Your task to perform on an android device: turn on translation in the chrome app Image 0: 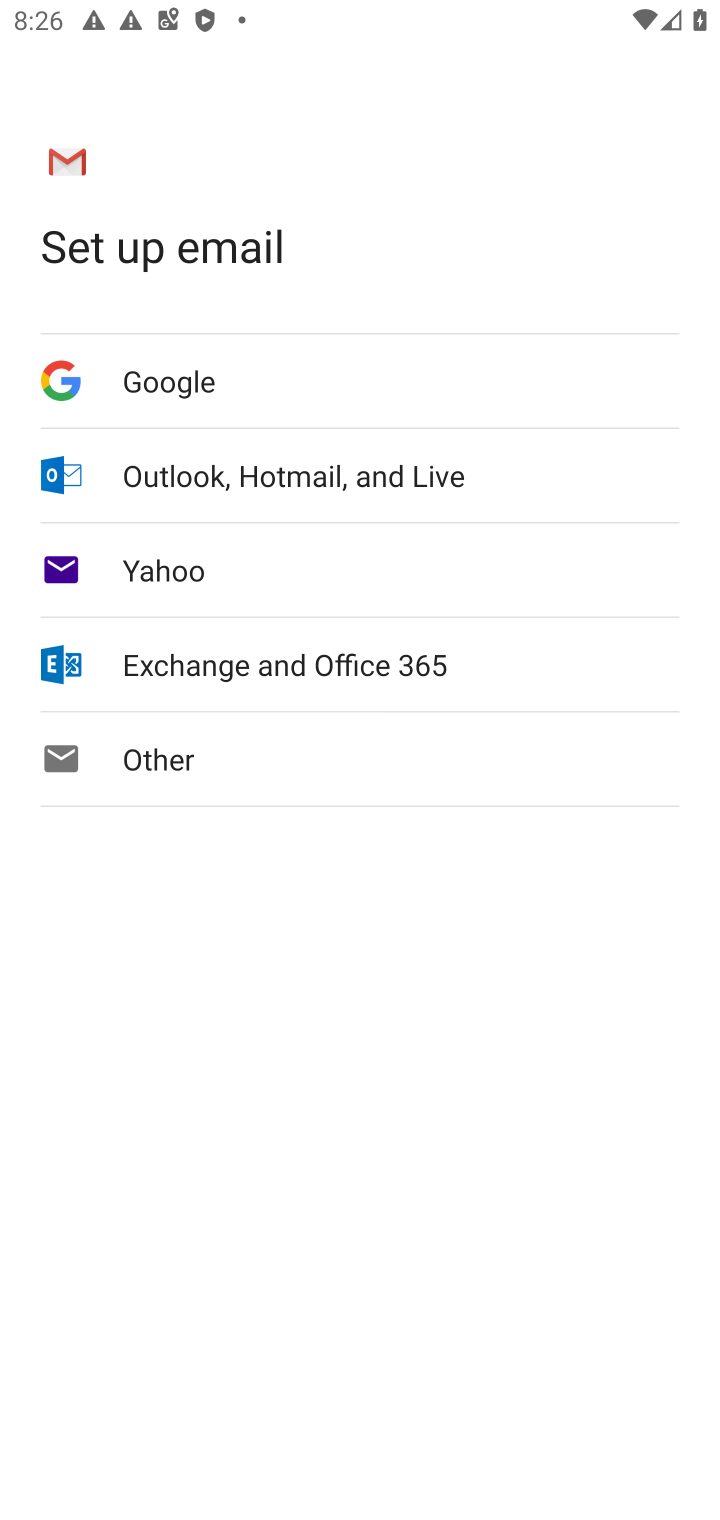
Step 0: press back button
Your task to perform on an android device: turn on translation in the chrome app Image 1: 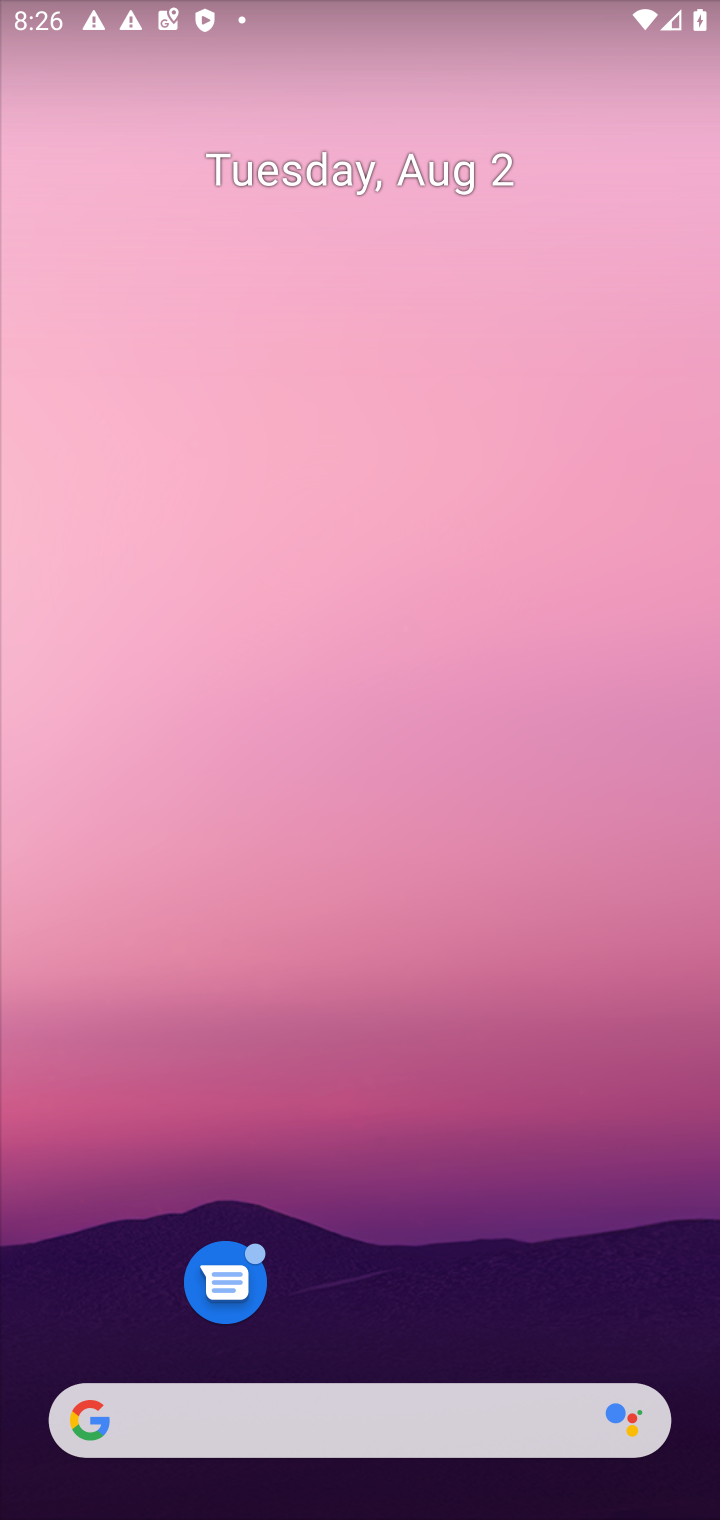
Step 1: drag from (435, 1351) to (323, 138)
Your task to perform on an android device: turn on translation in the chrome app Image 2: 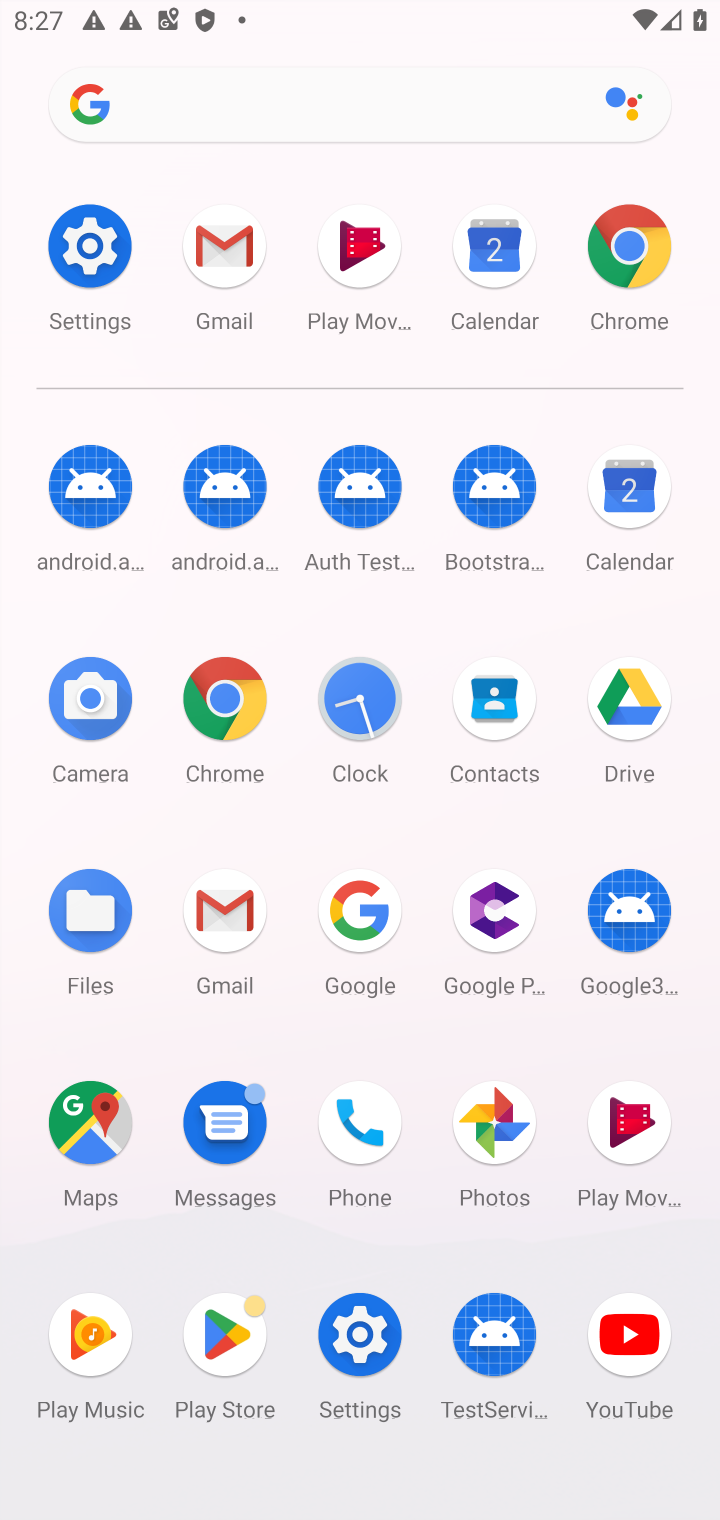
Step 2: click (234, 709)
Your task to perform on an android device: turn on translation in the chrome app Image 3: 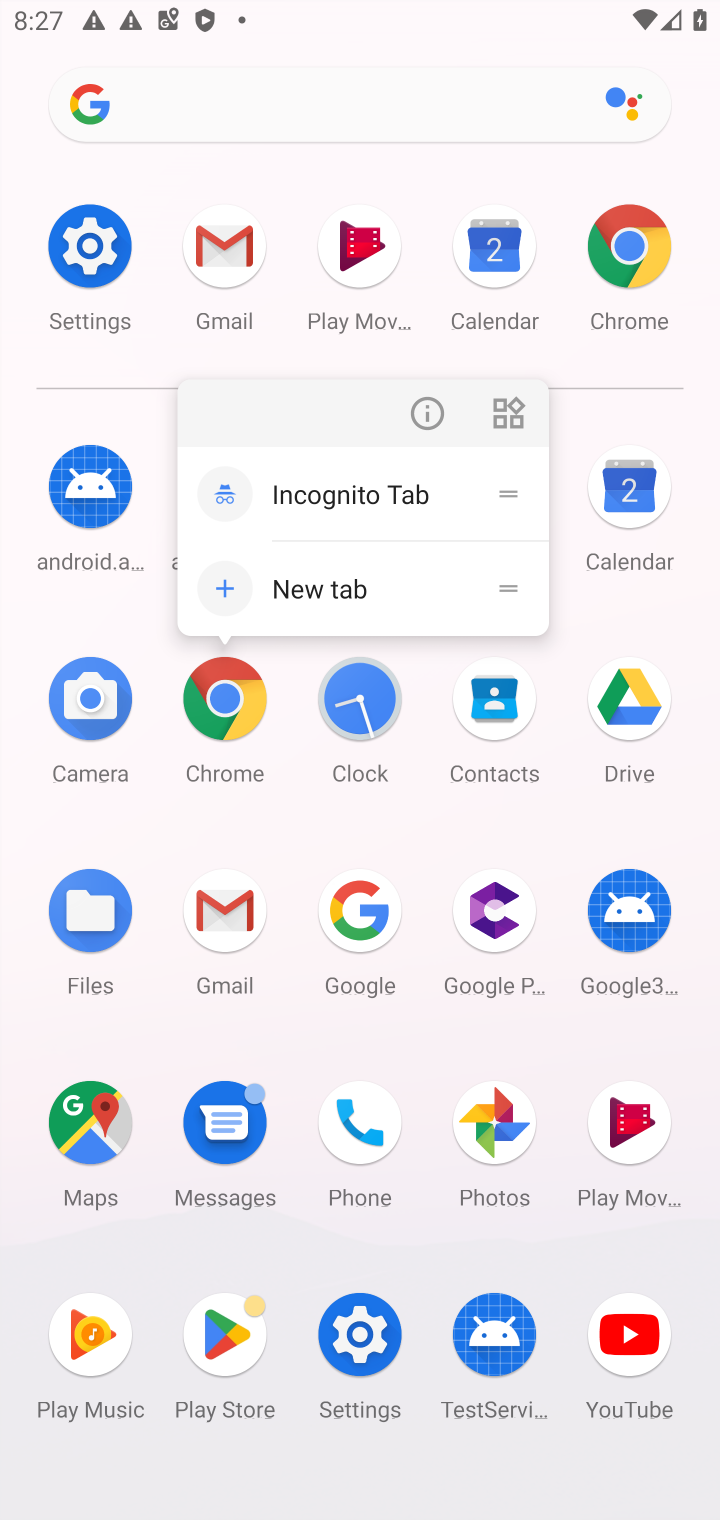
Step 3: click (238, 706)
Your task to perform on an android device: turn on translation in the chrome app Image 4: 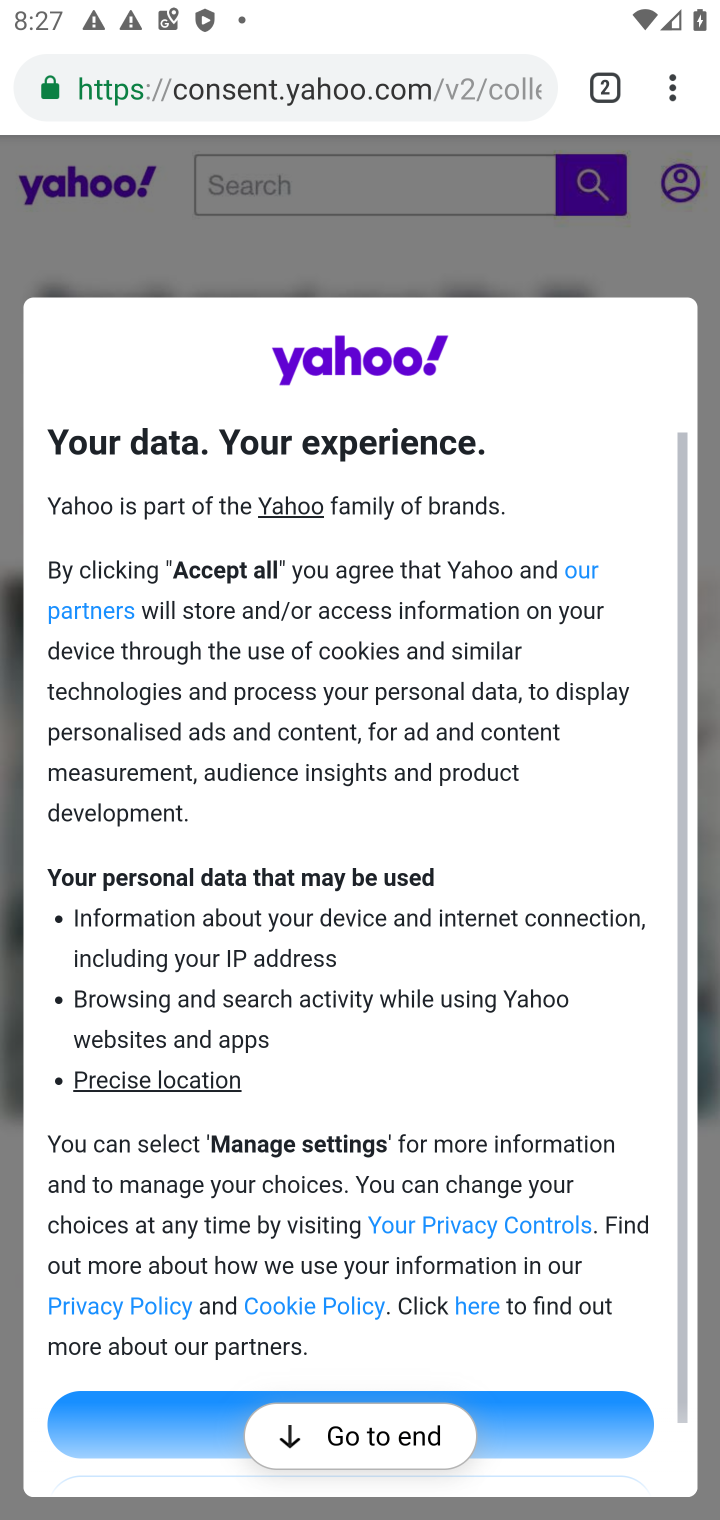
Step 4: click (687, 95)
Your task to perform on an android device: turn on translation in the chrome app Image 5: 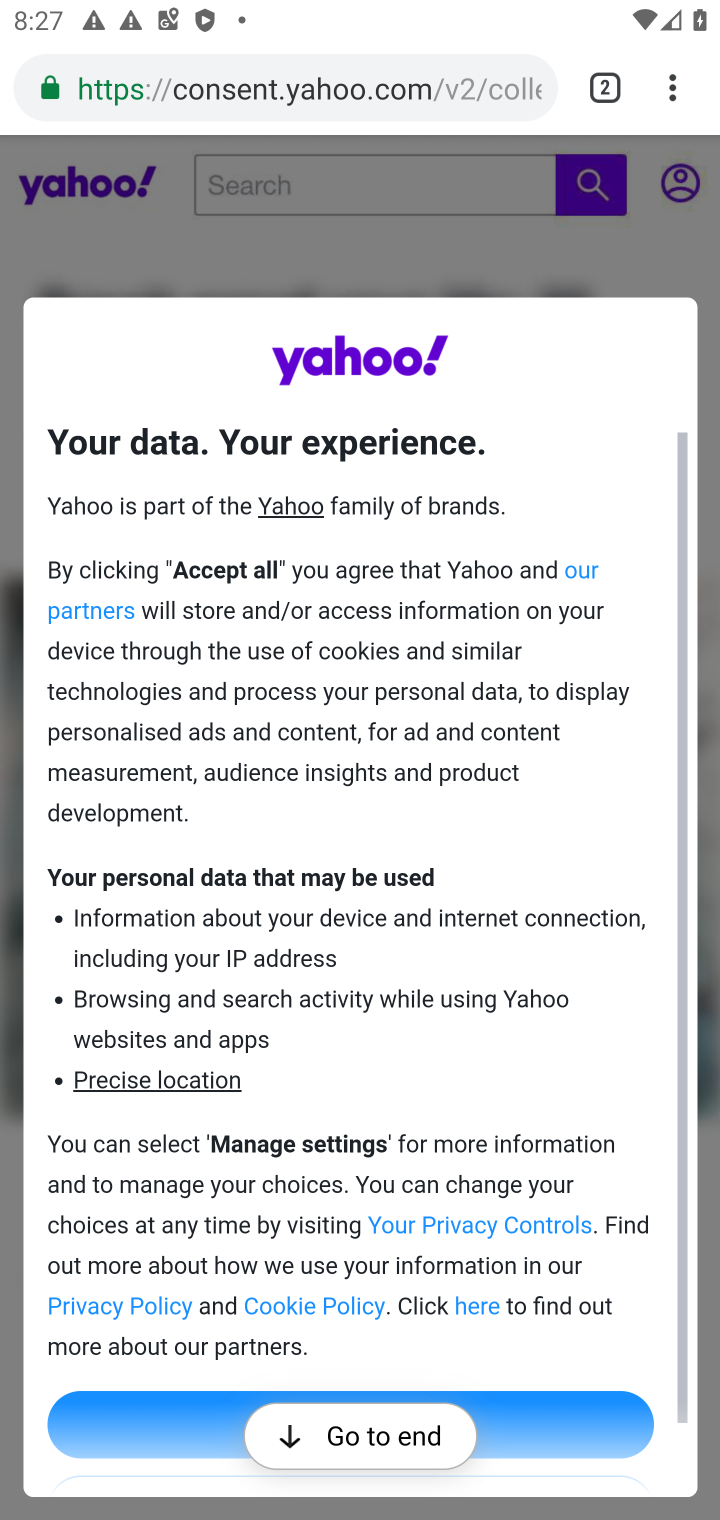
Step 5: drag from (673, 106) to (355, 1069)
Your task to perform on an android device: turn on translation in the chrome app Image 6: 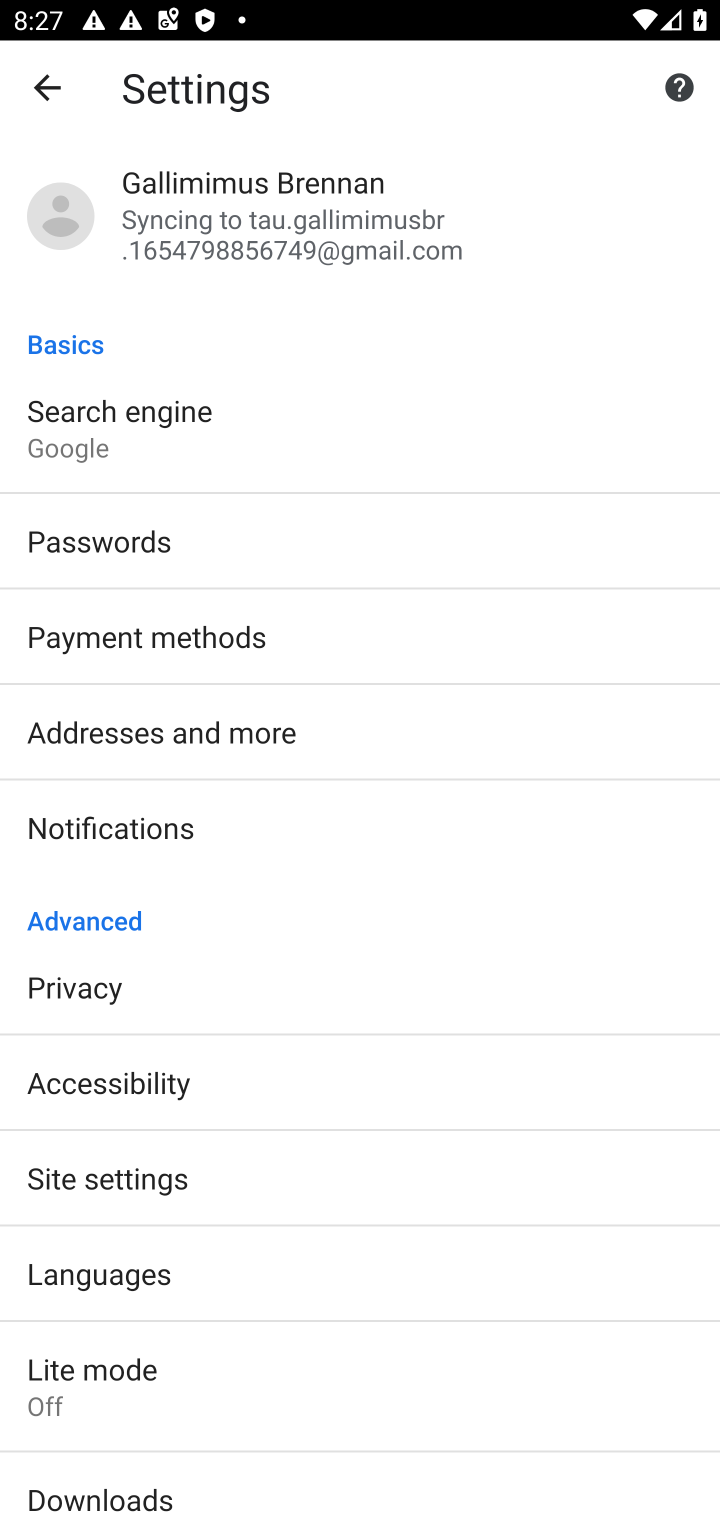
Step 6: drag from (173, 1177) to (7, 135)
Your task to perform on an android device: turn on translation in the chrome app Image 7: 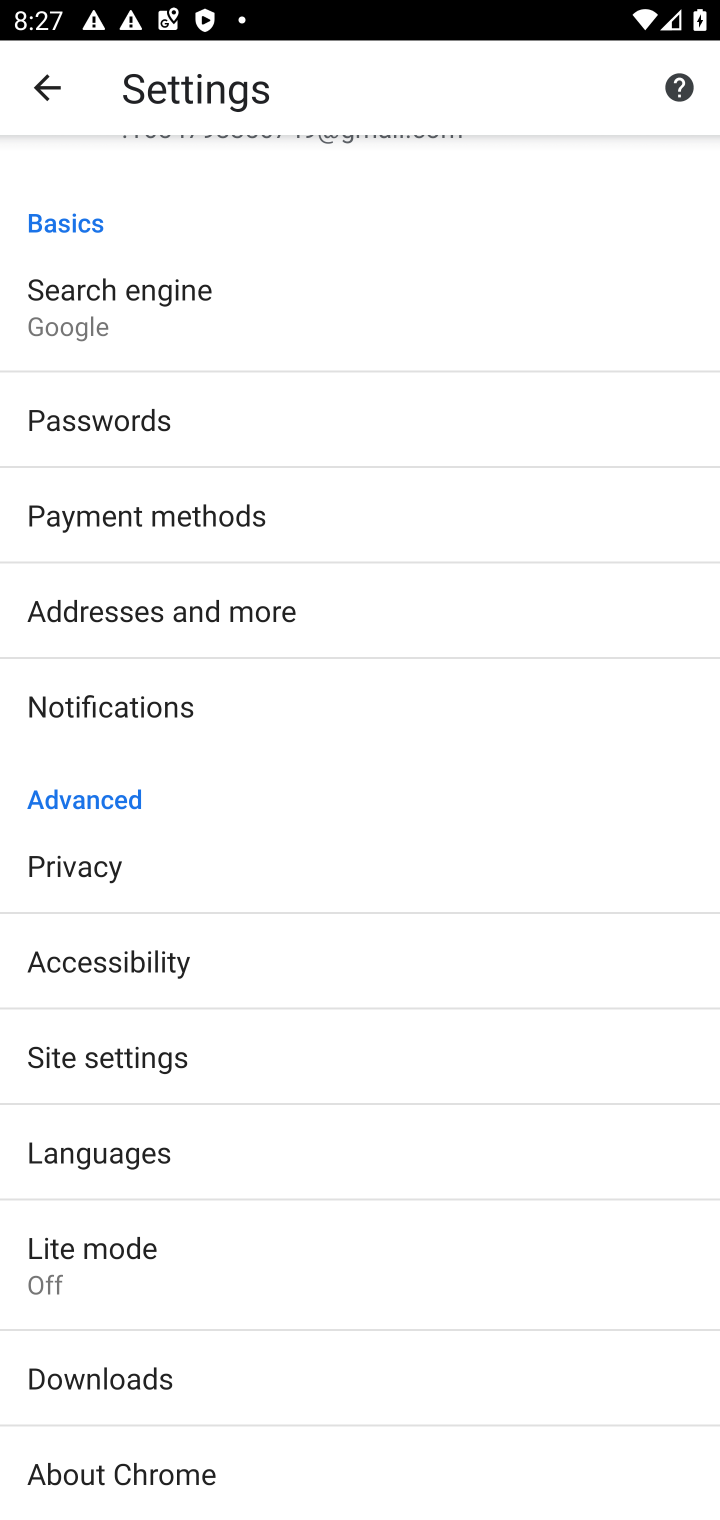
Step 7: click (96, 1169)
Your task to perform on an android device: turn on translation in the chrome app Image 8: 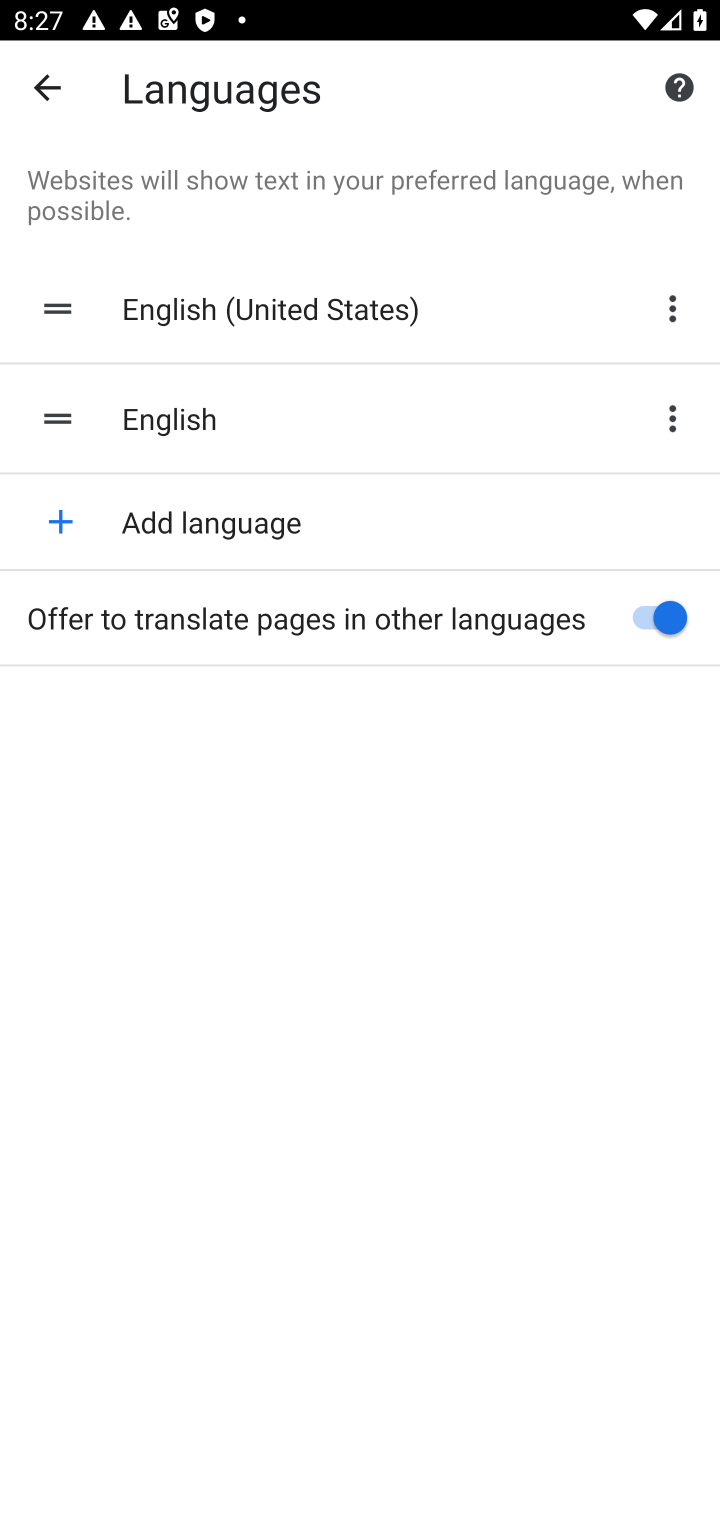
Step 8: task complete